Your task to perform on an android device: Open wifi settings Image 0: 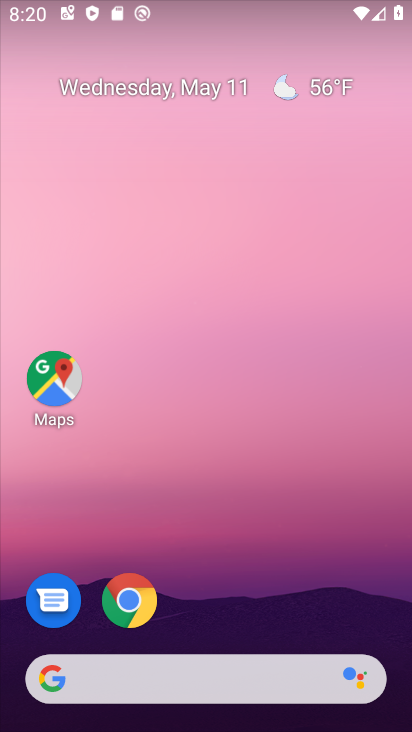
Step 0: drag from (255, 584) to (249, 4)
Your task to perform on an android device: Open wifi settings Image 1: 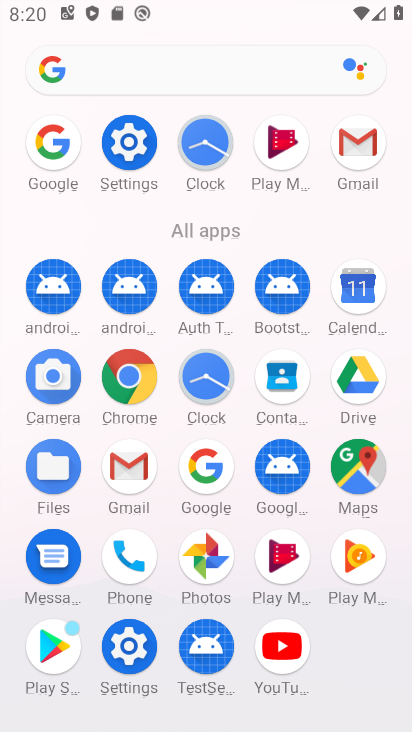
Step 1: click (127, 141)
Your task to perform on an android device: Open wifi settings Image 2: 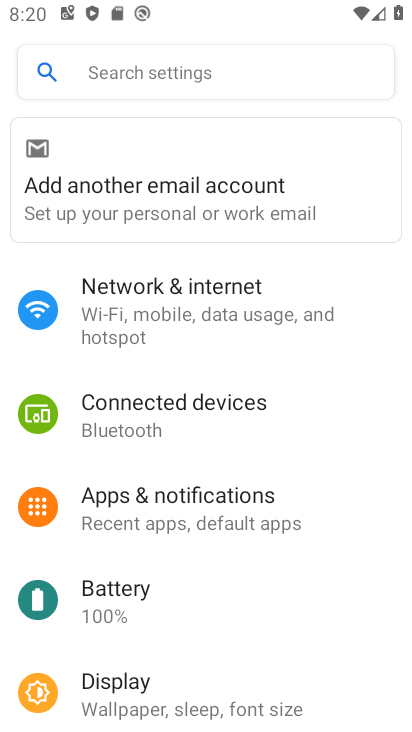
Step 2: click (228, 288)
Your task to perform on an android device: Open wifi settings Image 3: 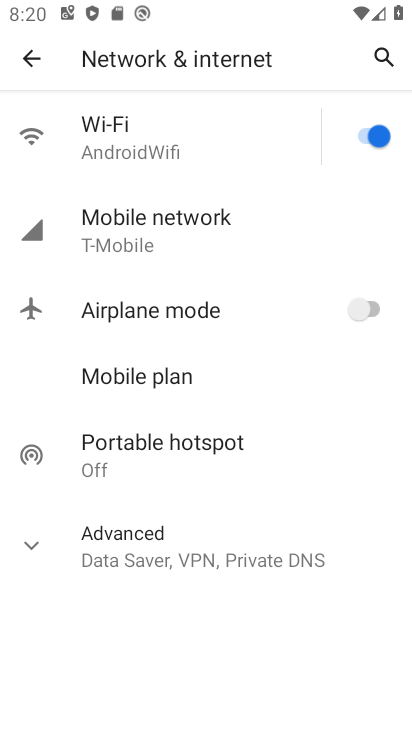
Step 3: click (98, 149)
Your task to perform on an android device: Open wifi settings Image 4: 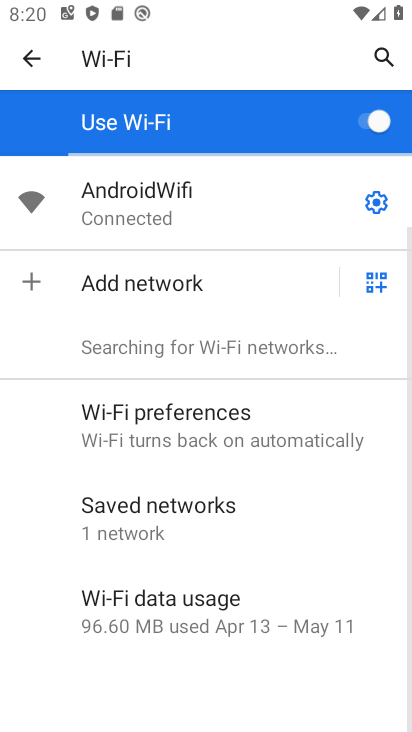
Step 4: click (374, 204)
Your task to perform on an android device: Open wifi settings Image 5: 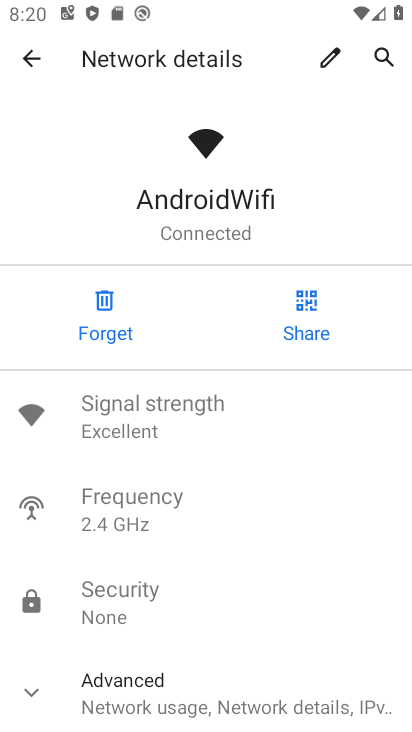
Step 5: task complete